Your task to perform on an android device: turn off improve location accuracy Image 0: 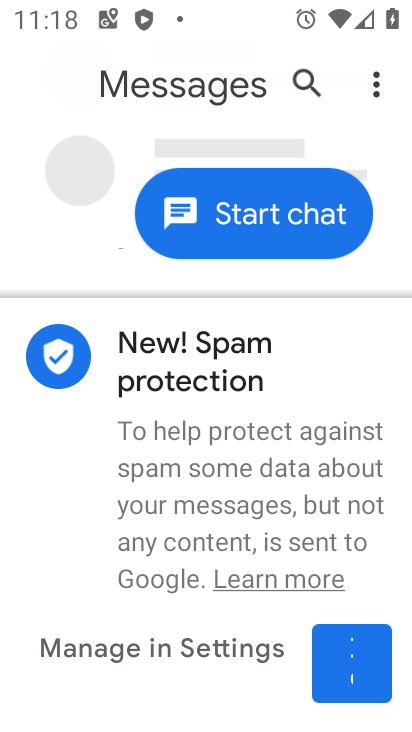
Step 0: press home button
Your task to perform on an android device: turn off improve location accuracy Image 1: 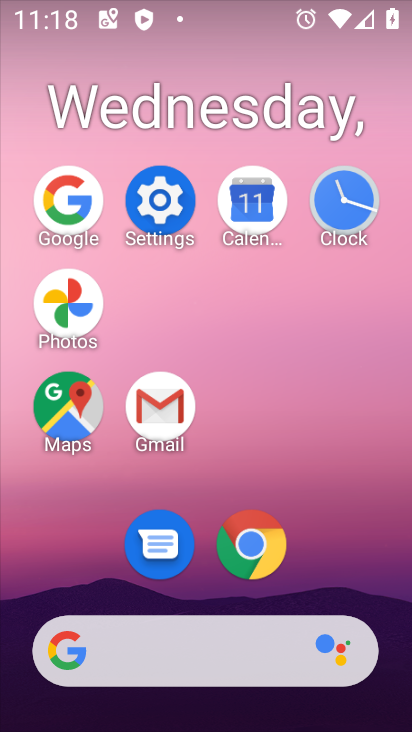
Step 1: click (189, 195)
Your task to perform on an android device: turn off improve location accuracy Image 2: 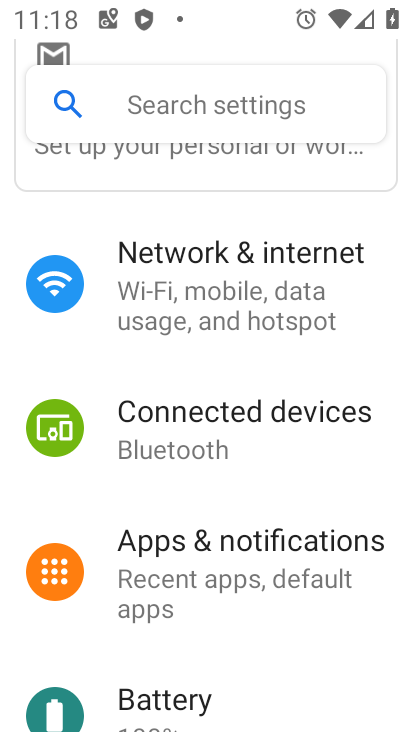
Step 2: drag from (272, 621) to (216, 87)
Your task to perform on an android device: turn off improve location accuracy Image 3: 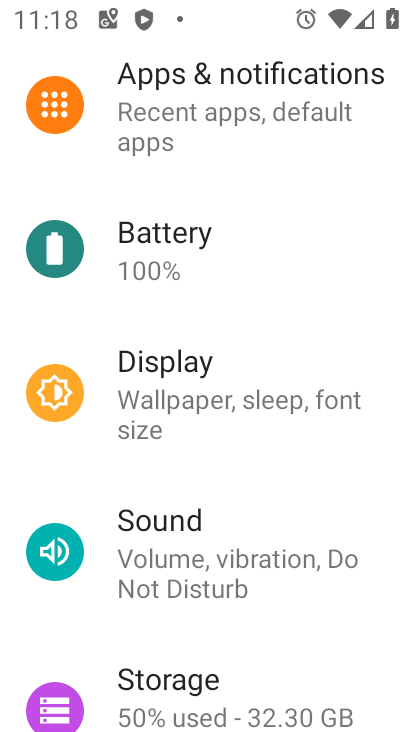
Step 3: drag from (282, 627) to (305, 168)
Your task to perform on an android device: turn off improve location accuracy Image 4: 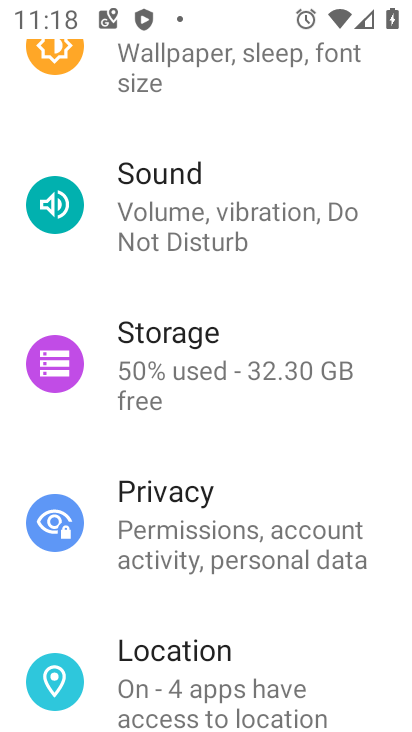
Step 4: click (260, 656)
Your task to perform on an android device: turn off improve location accuracy Image 5: 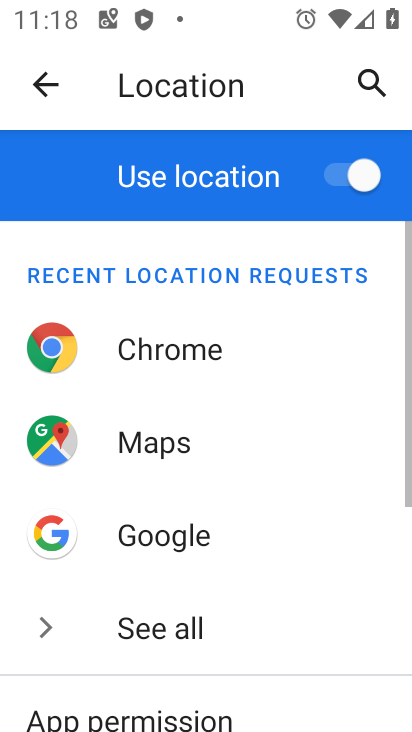
Step 5: drag from (260, 656) to (229, 150)
Your task to perform on an android device: turn off improve location accuracy Image 6: 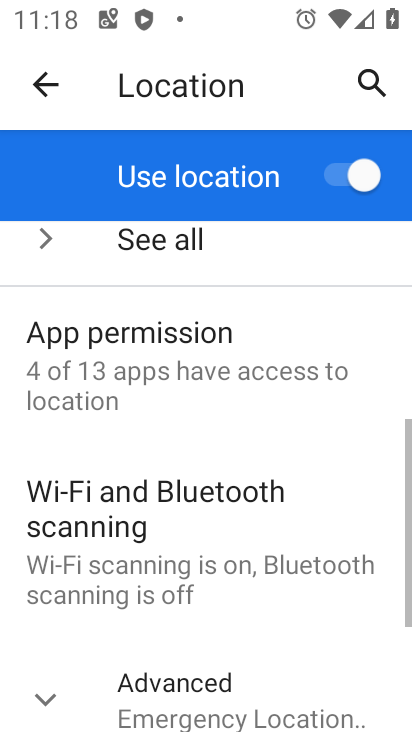
Step 6: click (288, 672)
Your task to perform on an android device: turn off improve location accuracy Image 7: 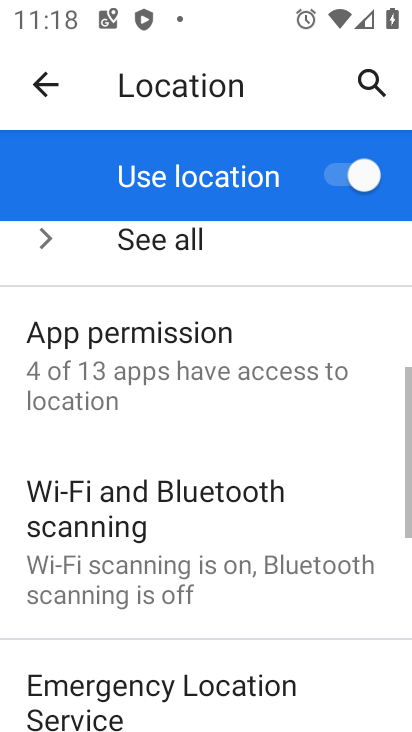
Step 7: drag from (285, 669) to (233, 226)
Your task to perform on an android device: turn off improve location accuracy Image 8: 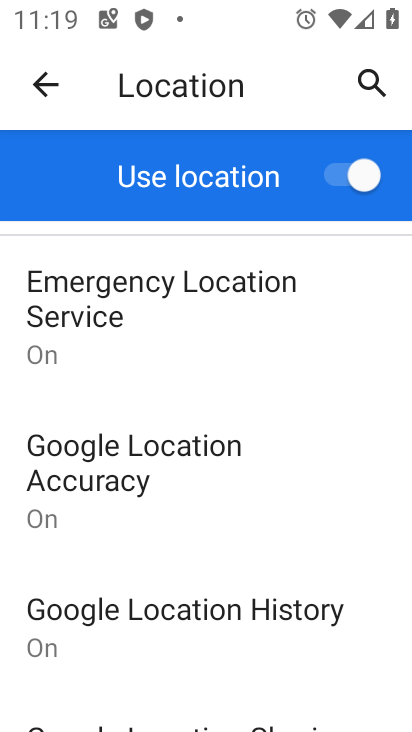
Step 8: drag from (278, 639) to (284, 248)
Your task to perform on an android device: turn off improve location accuracy Image 9: 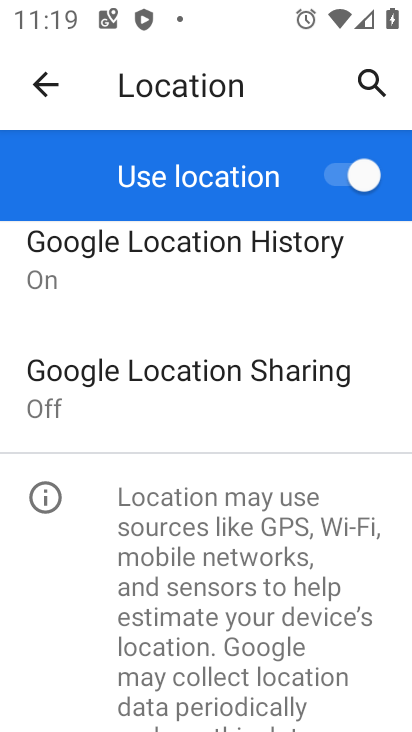
Step 9: drag from (265, 302) to (275, 550)
Your task to perform on an android device: turn off improve location accuracy Image 10: 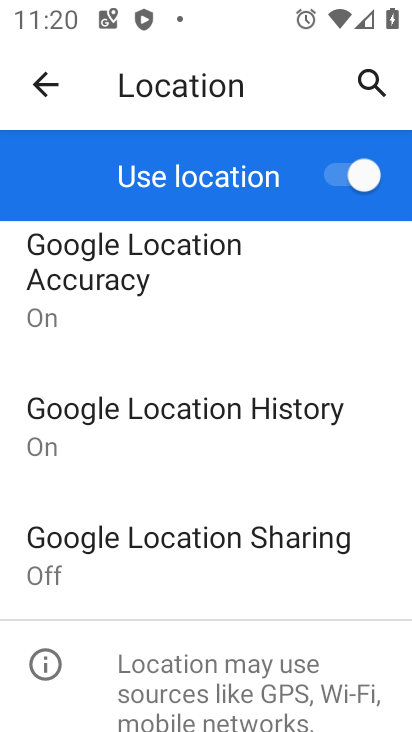
Step 10: click (221, 254)
Your task to perform on an android device: turn off improve location accuracy Image 11: 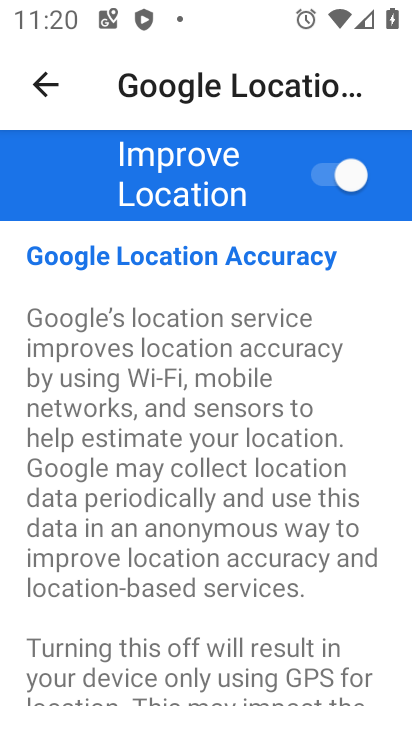
Step 11: drag from (292, 561) to (278, 79)
Your task to perform on an android device: turn off improve location accuracy Image 12: 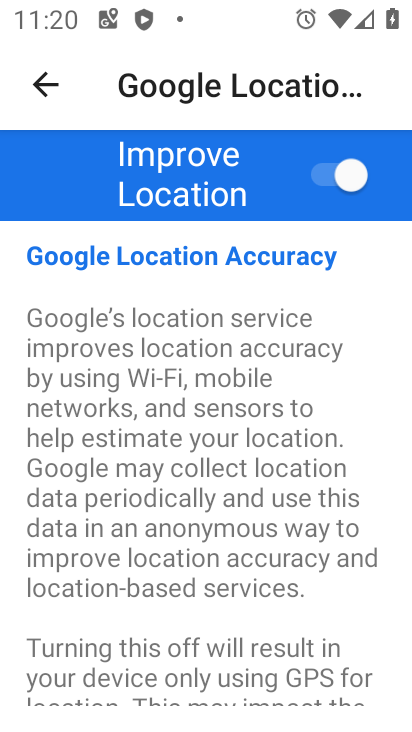
Step 12: drag from (296, 625) to (296, 180)
Your task to perform on an android device: turn off improve location accuracy Image 13: 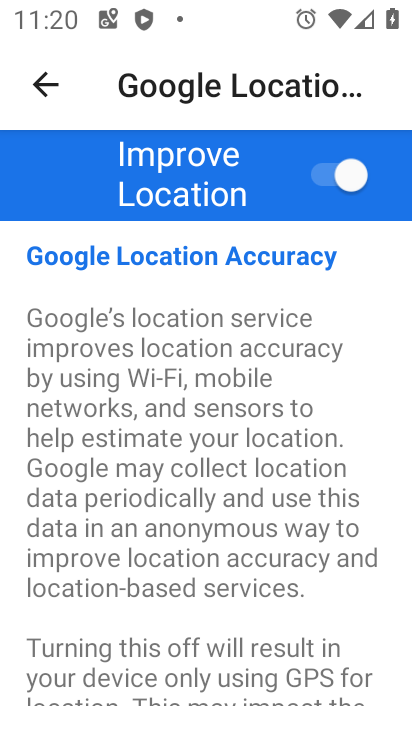
Step 13: click (337, 189)
Your task to perform on an android device: turn off improve location accuracy Image 14: 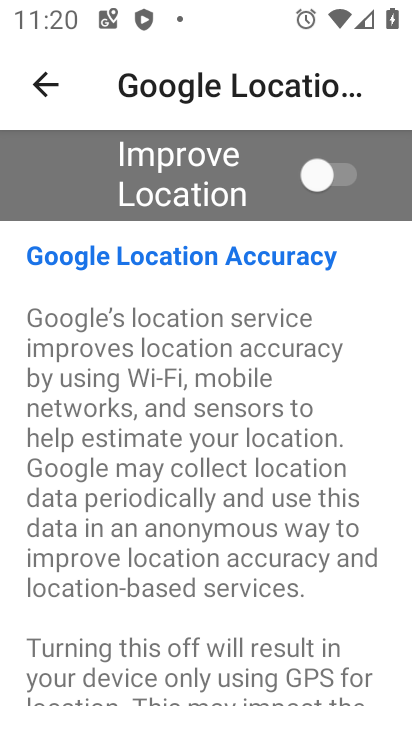
Step 14: task complete